Your task to perform on an android device: turn on showing notifications on the lock screen Image 0: 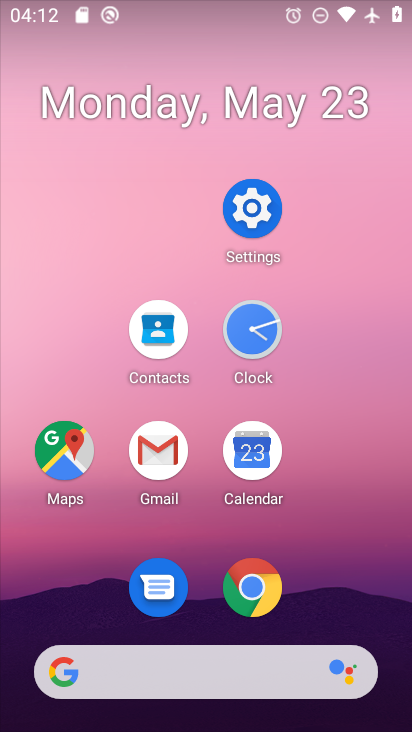
Step 0: click (242, 240)
Your task to perform on an android device: turn on showing notifications on the lock screen Image 1: 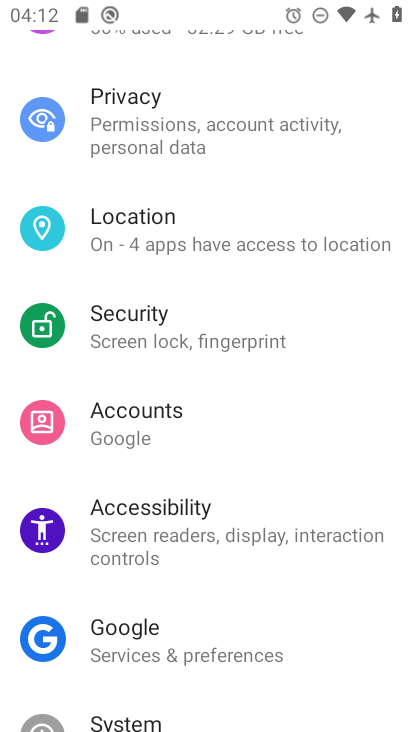
Step 1: drag from (180, 186) to (225, 730)
Your task to perform on an android device: turn on showing notifications on the lock screen Image 2: 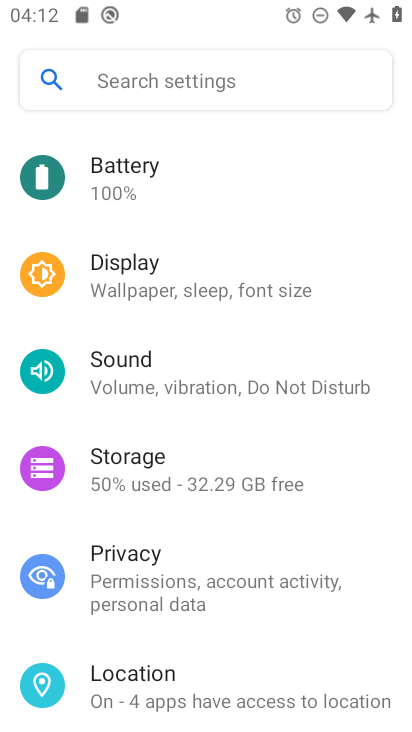
Step 2: drag from (281, 305) to (230, 698)
Your task to perform on an android device: turn on showing notifications on the lock screen Image 3: 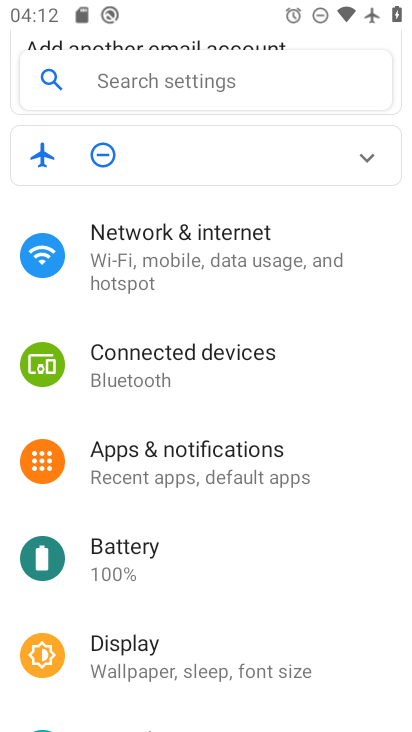
Step 3: click (217, 459)
Your task to perform on an android device: turn on showing notifications on the lock screen Image 4: 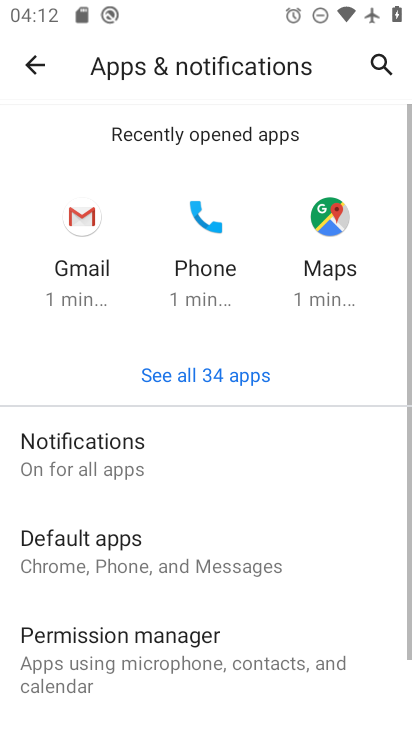
Step 4: drag from (212, 626) to (225, 461)
Your task to perform on an android device: turn on showing notifications on the lock screen Image 5: 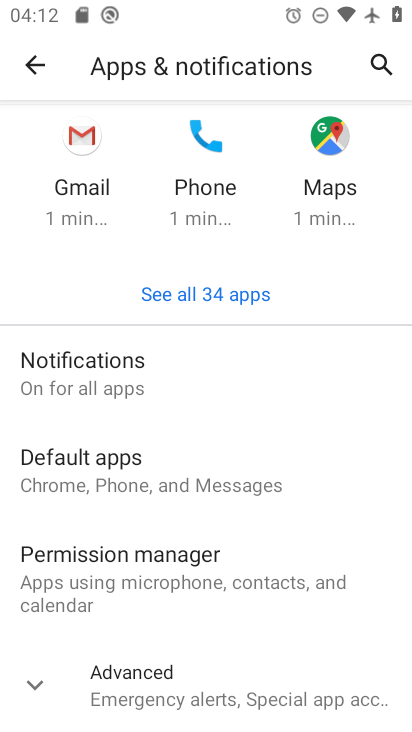
Step 5: click (202, 373)
Your task to perform on an android device: turn on showing notifications on the lock screen Image 6: 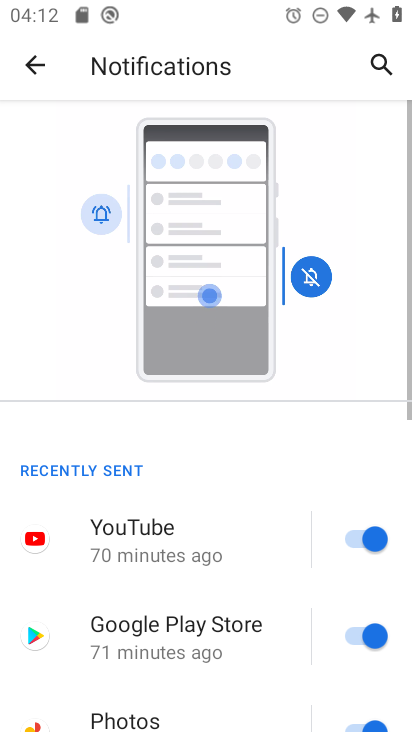
Step 6: drag from (228, 593) to (235, 141)
Your task to perform on an android device: turn on showing notifications on the lock screen Image 7: 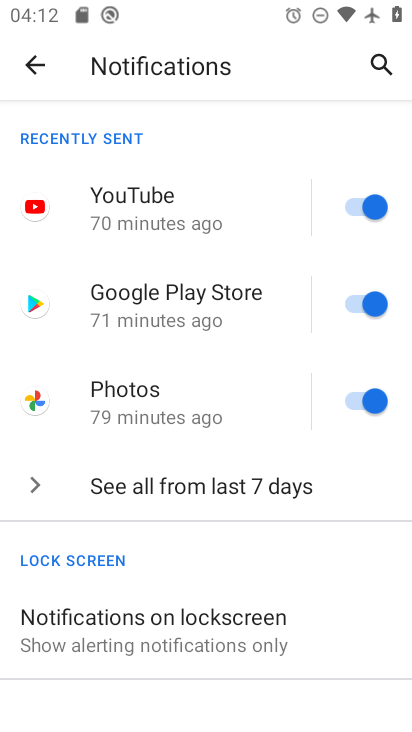
Step 7: drag from (203, 641) to (214, 181)
Your task to perform on an android device: turn on showing notifications on the lock screen Image 8: 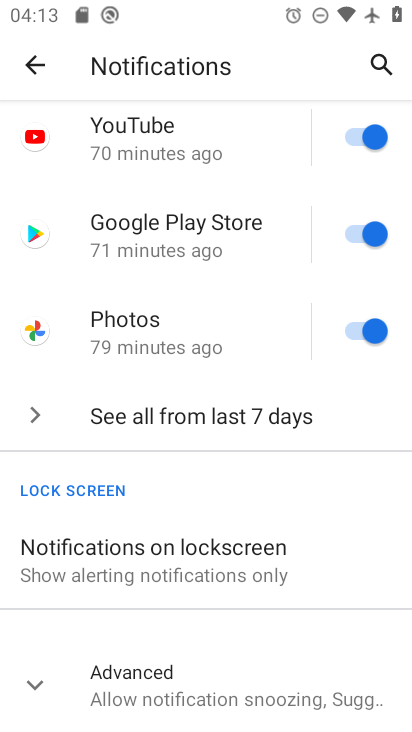
Step 8: click (239, 583)
Your task to perform on an android device: turn on showing notifications on the lock screen Image 9: 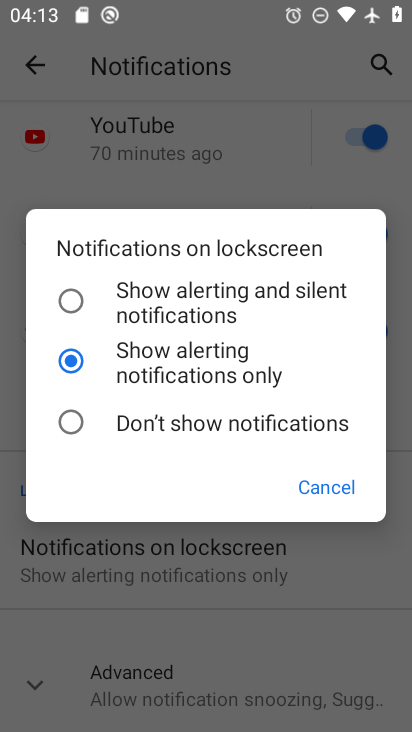
Step 9: click (179, 296)
Your task to perform on an android device: turn on showing notifications on the lock screen Image 10: 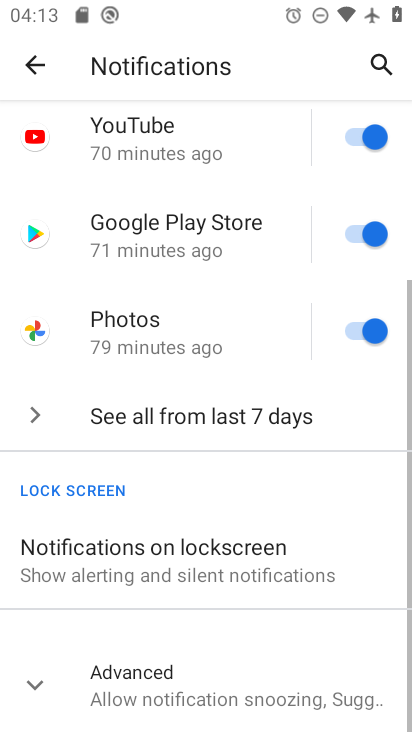
Step 10: task complete